Your task to perform on an android device: turn off translation in the chrome app Image 0: 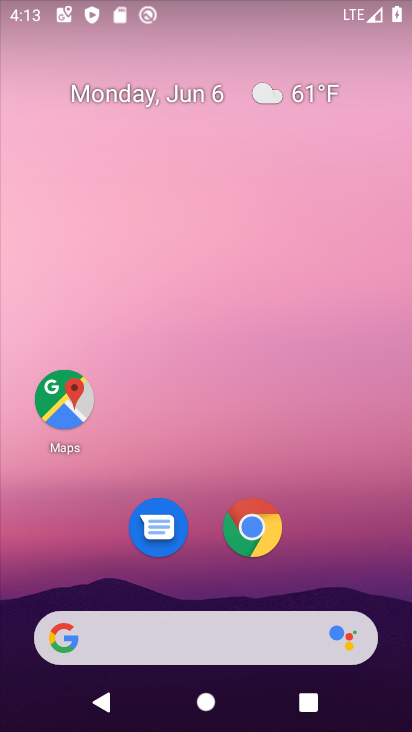
Step 0: click (249, 520)
Your task to perform on an android device: turn off translation in the chrome app Image 1: 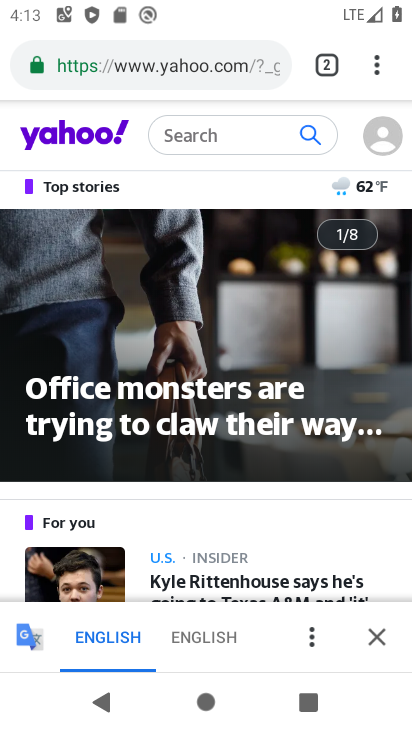
Step 1: click (379, 62)
Your task to perform on an android device: turn off translation in the chrome app Image 2: 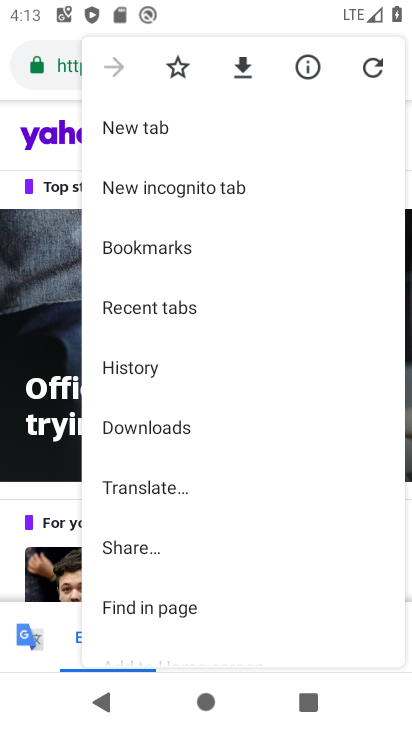
Step 2: click (128, 476)
Your task to perform on an android device: turn off translation in the chrome app Image 3: 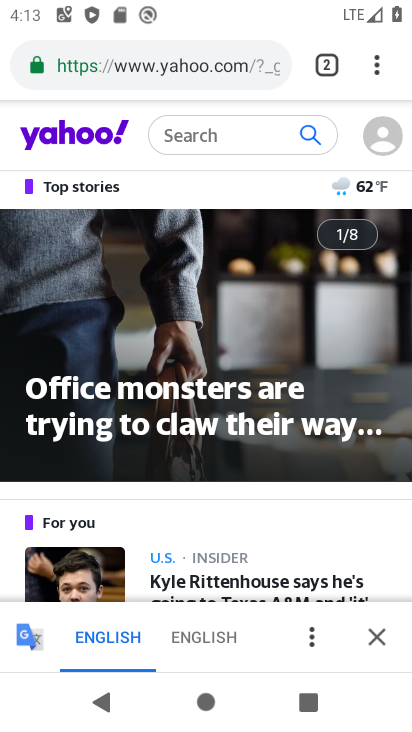
Step 3: click (313, 633)
Your task to perform on an android device: turn off translation in the chrome app Image 4: 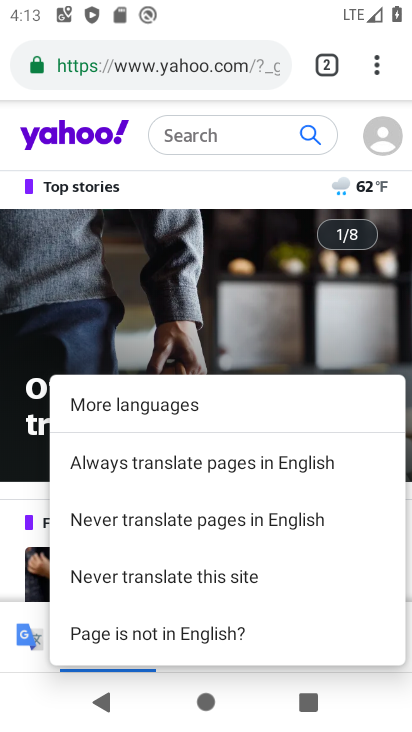
Step 4: click (201, 572)
Your task to perform on an android device: turn off translation in the chrome app Image 5: 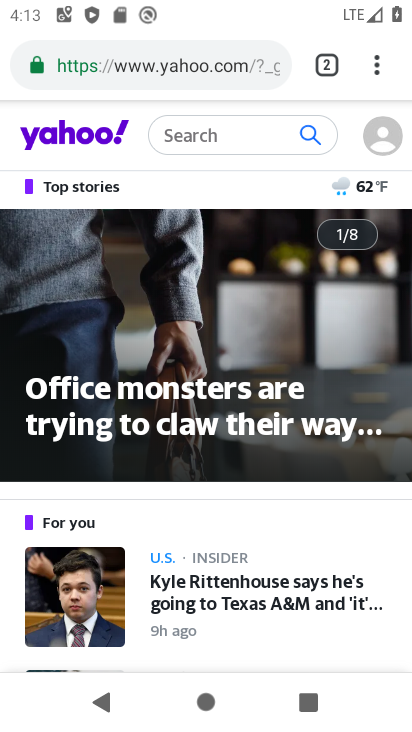
Step 5: task complete